Your task to perform on an android device: Play the last video I watched on Youtube Image 0: 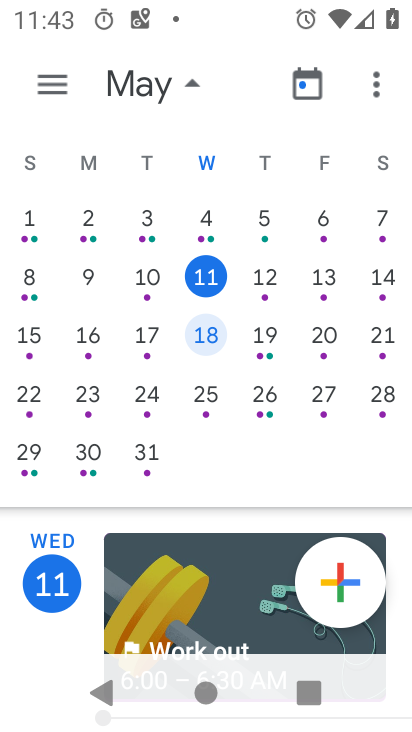
Step 0: press home button
Your task to perform on an android device: Play the last video I watched on Youtube Image 1: 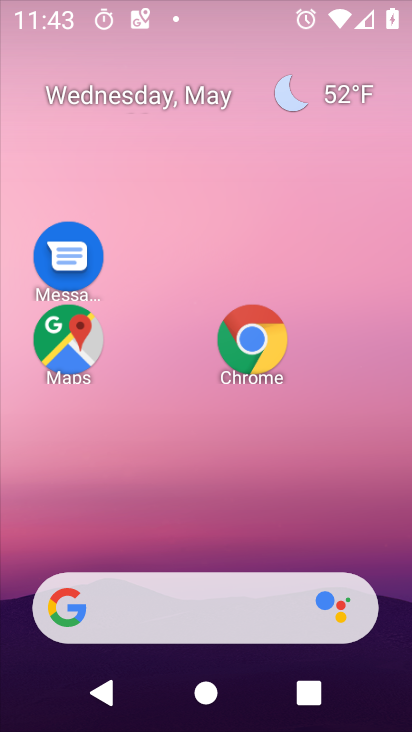
Step 1: drag from (211, 531) to (218, 15)
Your task to perform on an android device: Play the last video I watched on Youtube Image 2: 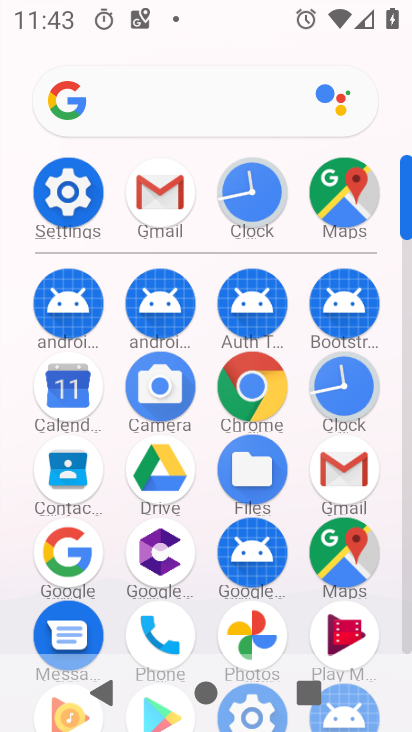
Step 2: drag from (198, 560) to (222, 21)
Your task to perform on an android device: Play the last video I watched on Youtube Image 3: 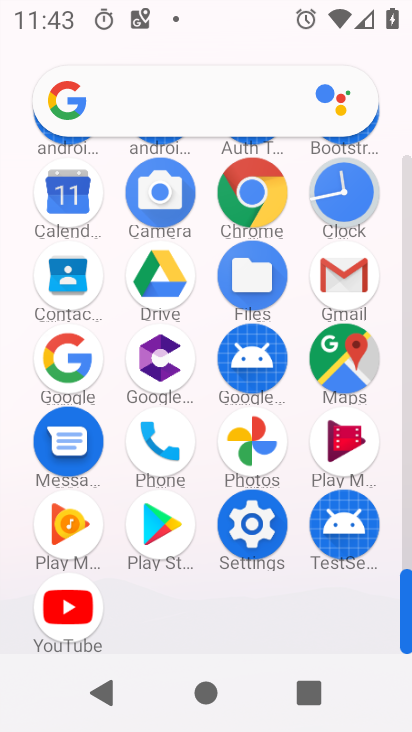
Step 3: click (68, 609)
Your task to perform on an android device: Play the last video I watched on Youtube Image 4: 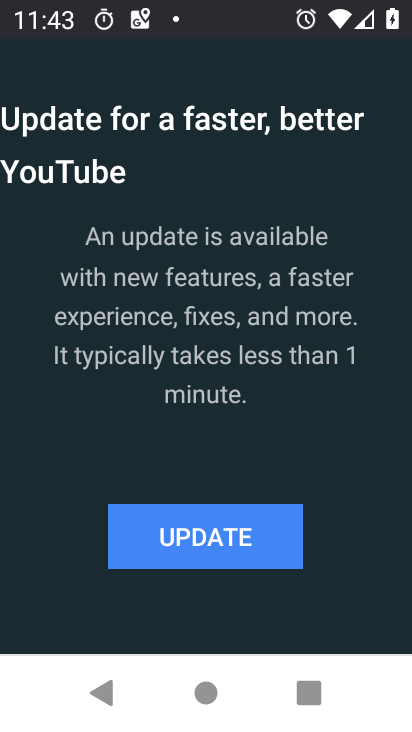
Step 4: click (220, 526)
Your task to perform on an android device: Play the last video I watched on Youtube Image 5: 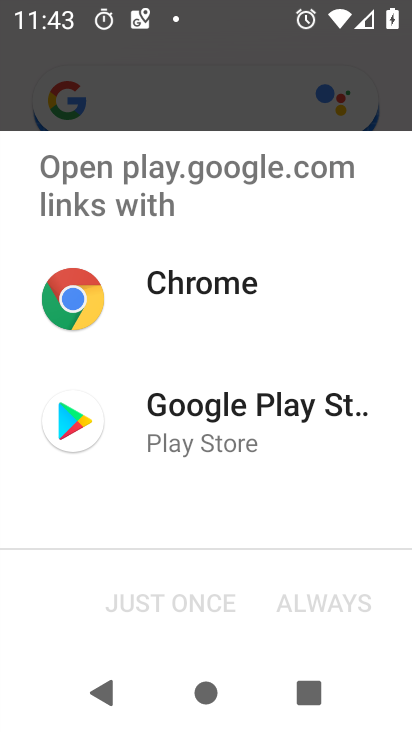
Step 5: click (194, 425)
Your task to perform on an android device: Play the last video I watched on Youtube Image 6: 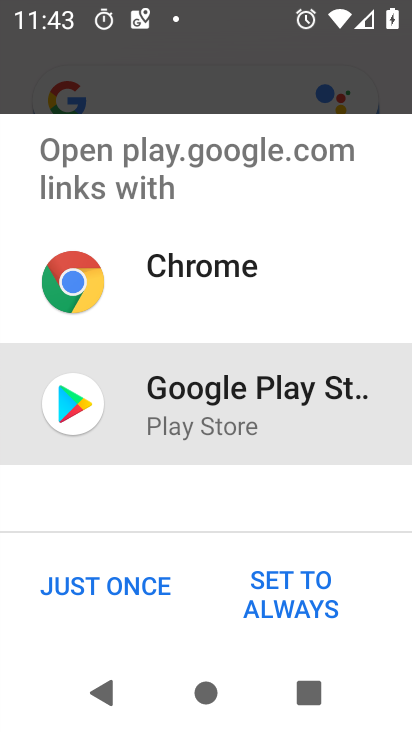
Step 6: click (118, 591)
Your task to perform on an android device: Play the last video I watched on Youtube Image 7: 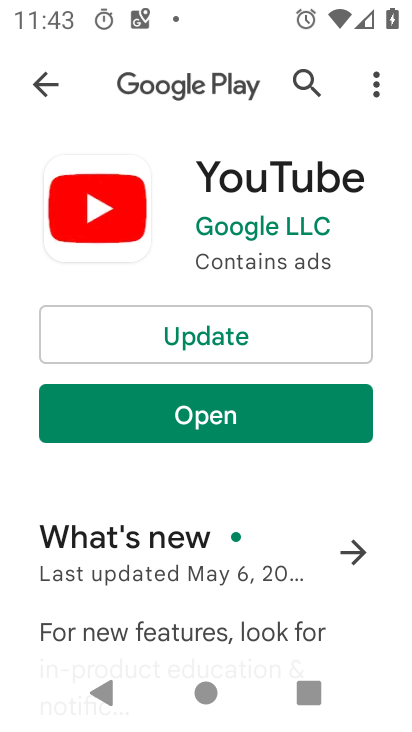
Step 7: click (182, 337)
Your task to perform on an android device: Play the last video I watched on Youtube Image 8: 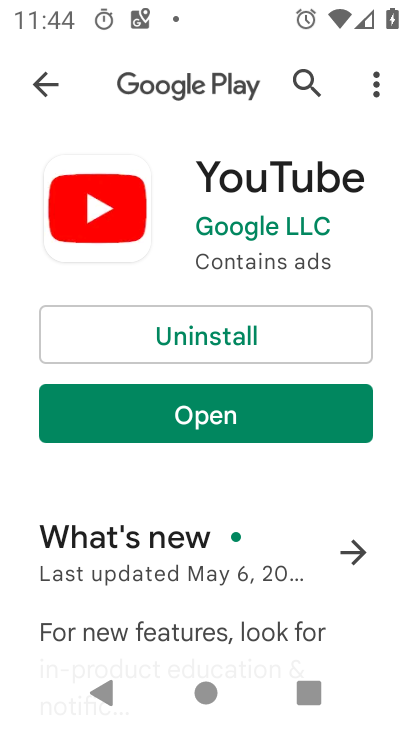
Step 8: click (212, 407)
Your task to perform on an android device: Play the last video I watched on Youtube Image 9: 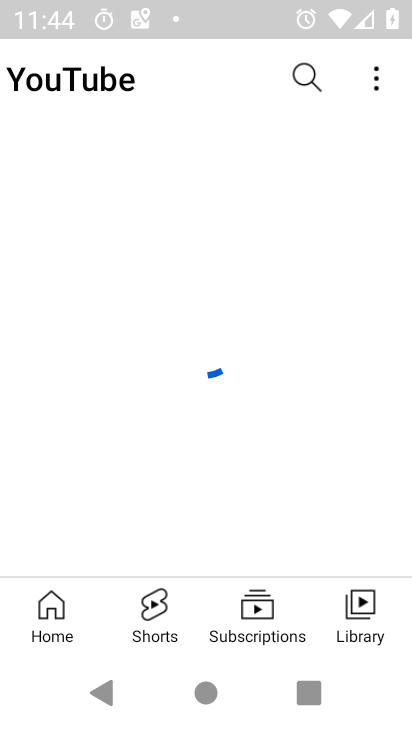
Step 9: click (305, 80)
Your task to perform on an android device: Play the last video I watched on Youtube Image 10: 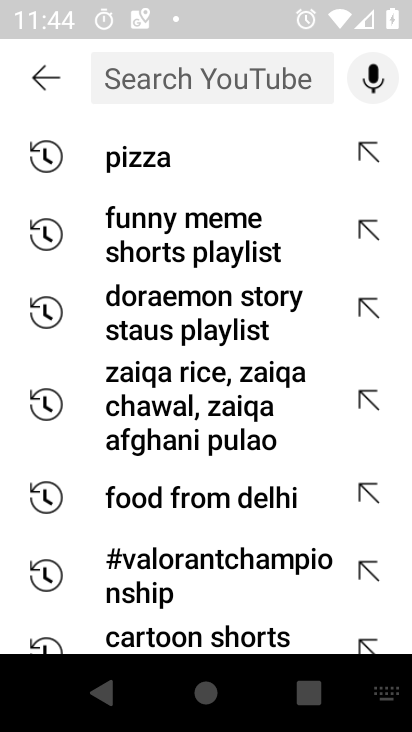
Step 10: click (179, 162)
Your task to perform on an android device: Play the last video I watched on Youtube Image 11: 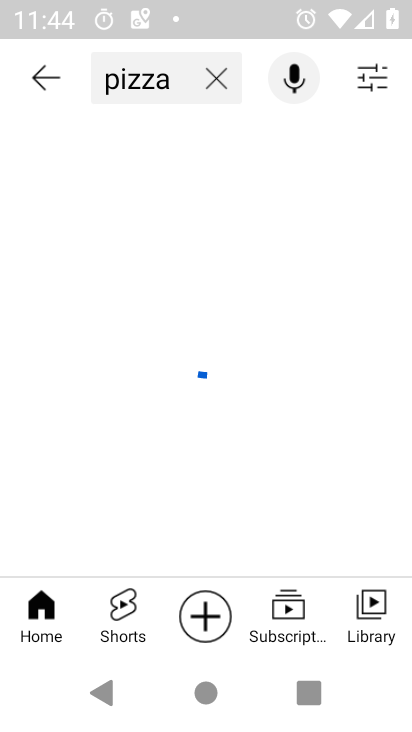
Step 11: task complete